Your task to perform on an android device: Check the weather Image 0: 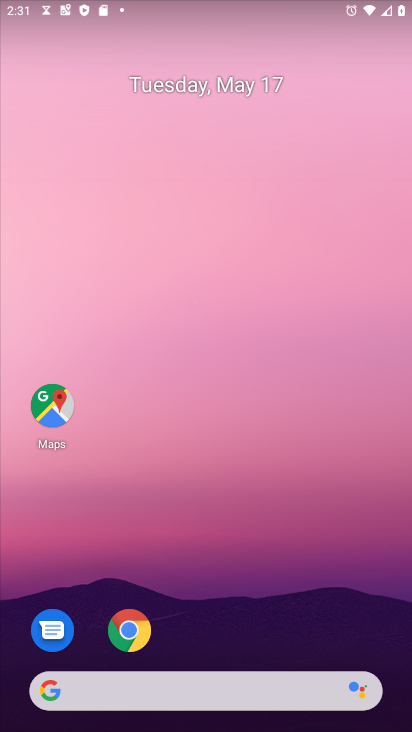
Step 0: click (163, 141)
Your task to perform on an android device: Check the weather Image 1: 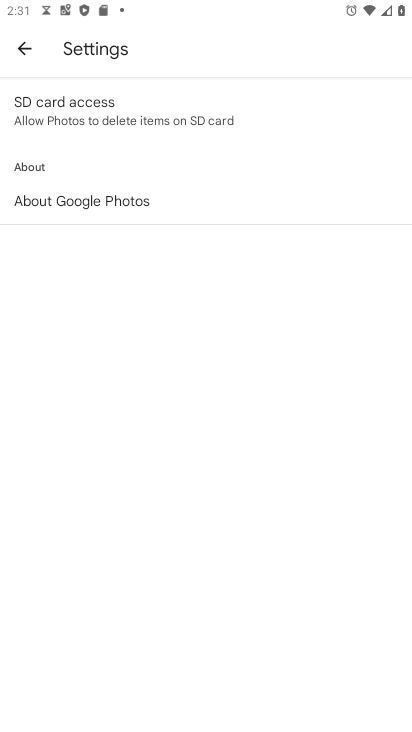
Step 1: click (16, 44)
Your task to perform on an android device: Check the weather Image 2: 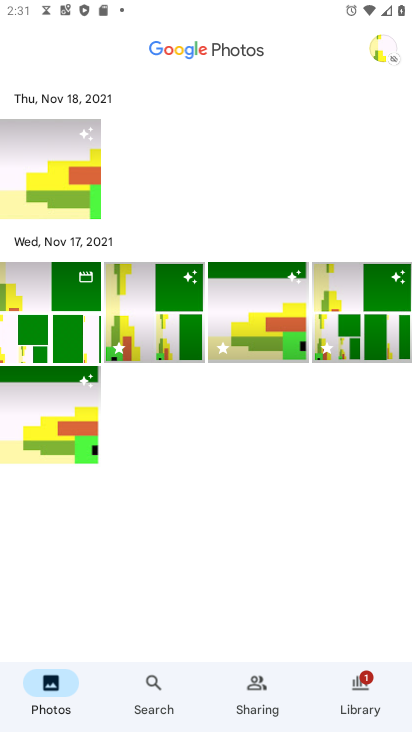
Step 2: task complete